Your task to perform on an android device: turn on airplane mode Image 0: 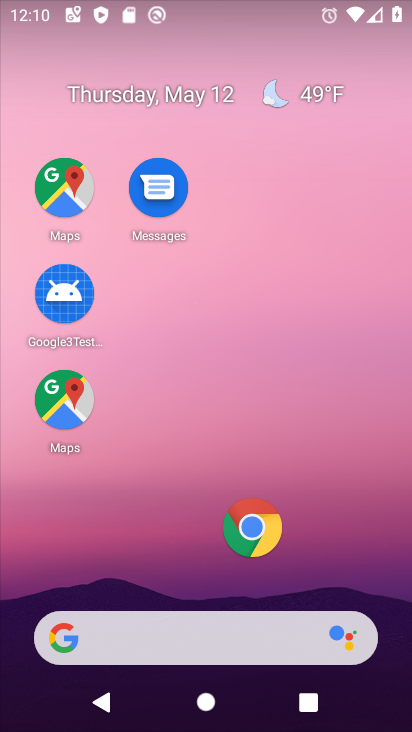
Step 0: drag from (201, 605) to (201, 2)
Your task to perform on an android device: turn on airplane mode Image 1: 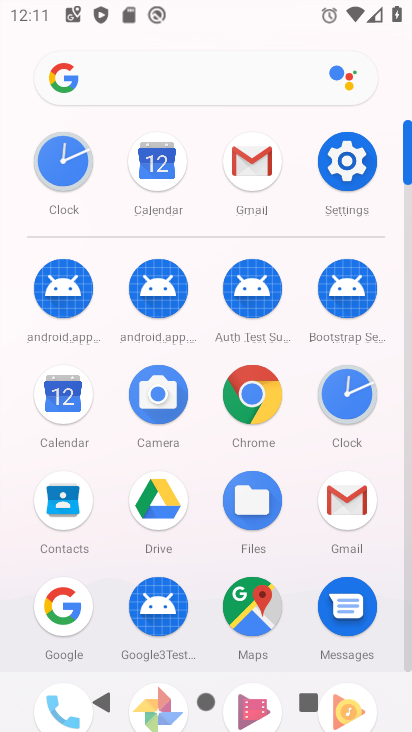
Step 1: click (338, 186)
Your task to perform on an android device: turn on airplane mode Image 2: 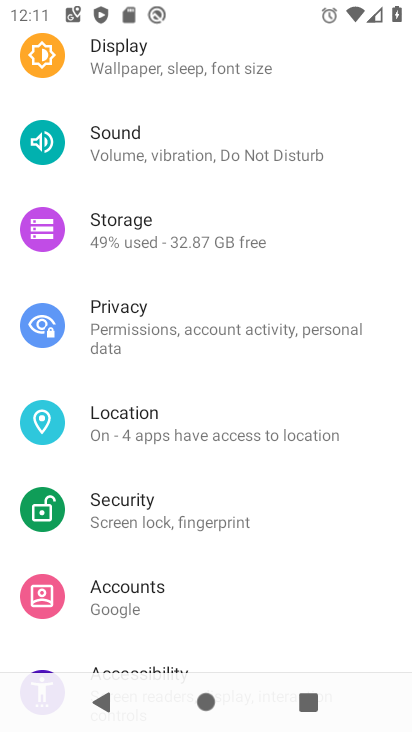
Step 2: drag from (294, 154) to (211, 572)
Your task to perform on an android device: turn on airplane mode Image 3: 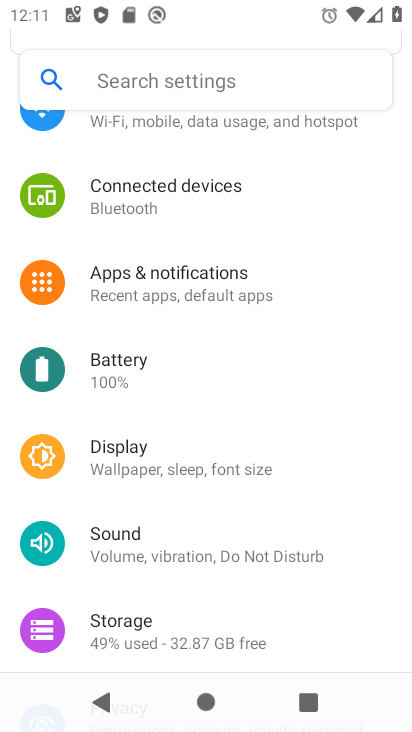
Step 3: click (170, 132)
Your task to perform on an android device: turn on airplane mode Image 4: 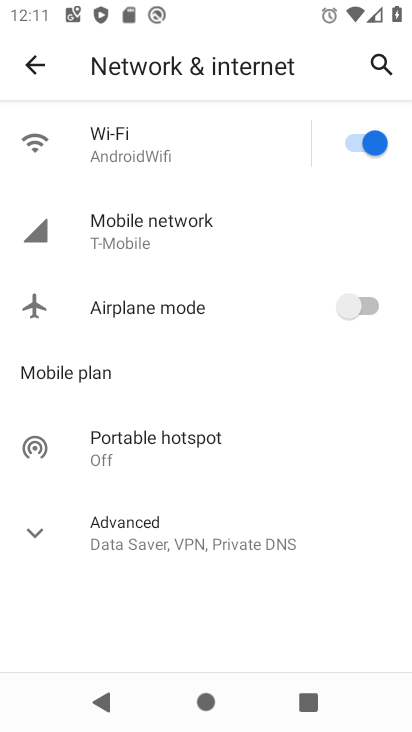
Step 4: click (373, 311)
Your task to perform on an android device: turn on airplane mode Image 5: 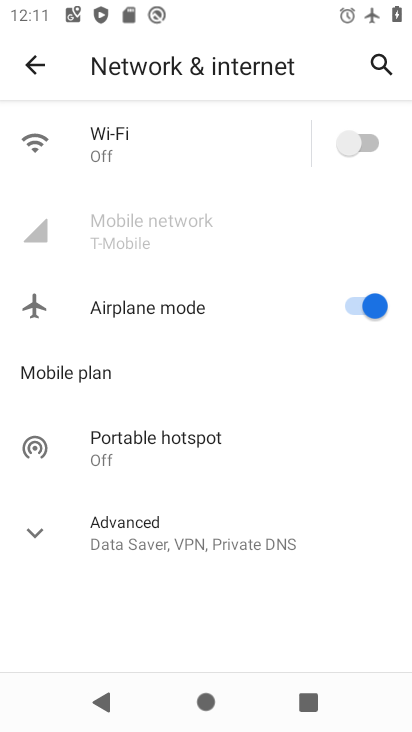
Step 5: task complete